Your task to perform on an android device: turn pop-ups on in chrome Image 0: 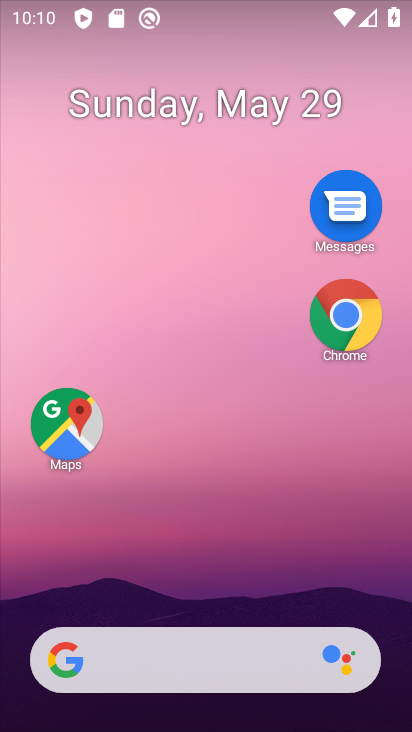
Step 0: click (348, 341)
Your task to perform on an android device: turn pop-ups on in chrome Image 1: 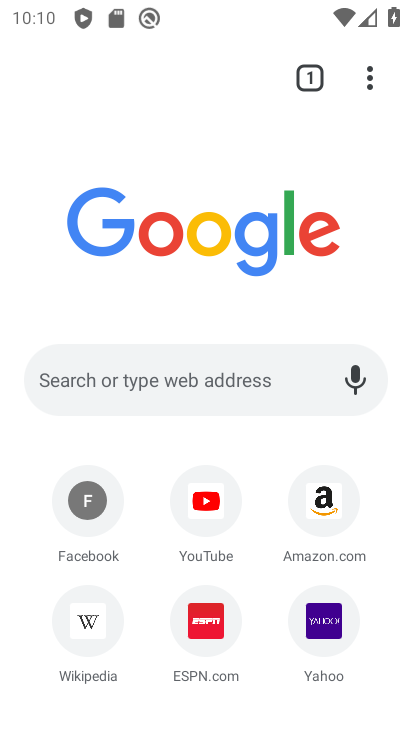
Step 1: click (365, 74)
Your task to perform on an android device: turn pop-ups on in chrome Image 2: 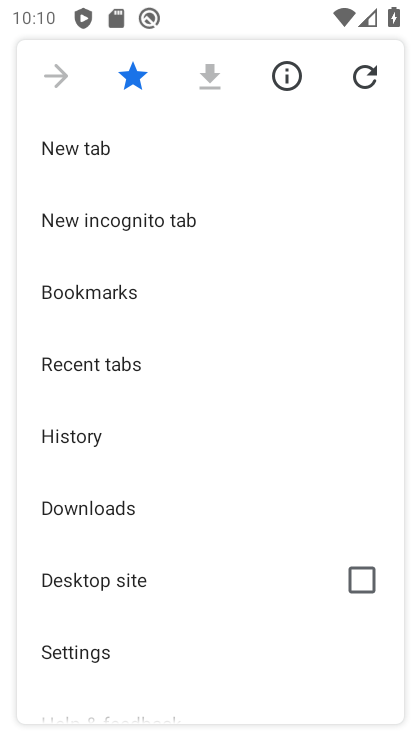
Step 2: click (111, 657)
Your task to perform on an android device: turn pop-ups on in chrome Image 3: 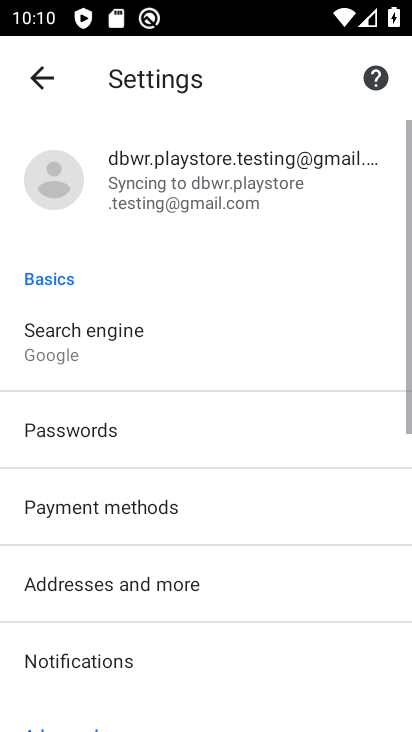
Step 3: drag from (124, 654) to (145, 222)
Your task to perform on an android device: turn pop-ups on in chrome Image 4: 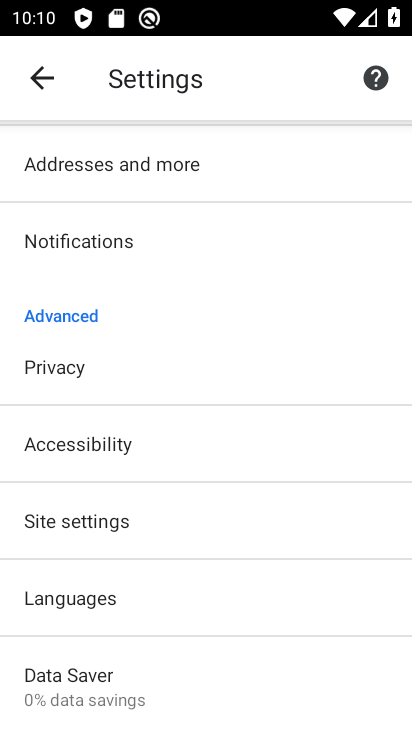
Step 4: click (75, 521)
Your task to perform on an android device: turn pop-ups on in chrome Image 5: 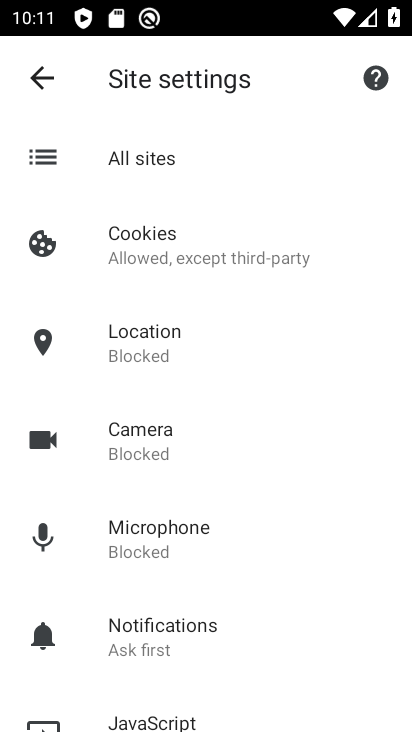
Step 5: drag from (142, 682) to (138, 532)
Your task to perform on an android device: turn pop-ups on in chrome Image 6: 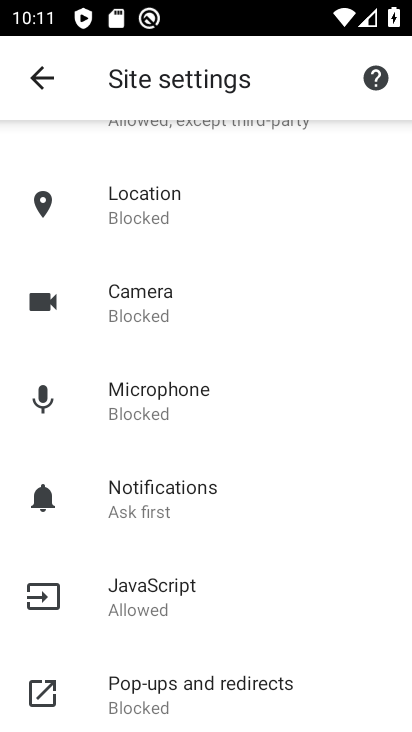
Step 6: click (189, 685)
Your task to perform on an android device: turn pop-ups on in chrome Image 7: 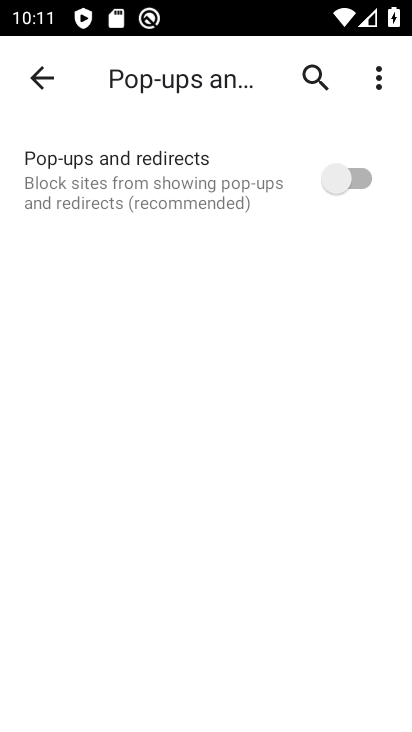
Step 7: click (366, 183)
Your task to perform on an android device: turn pop-ups on in chrome Image 8: 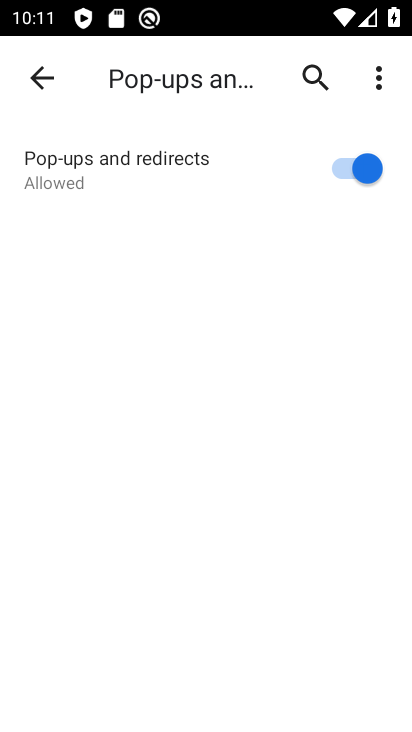
Step 8: task complete